Your task to perform on an android device: open app "Messages" Image 0: 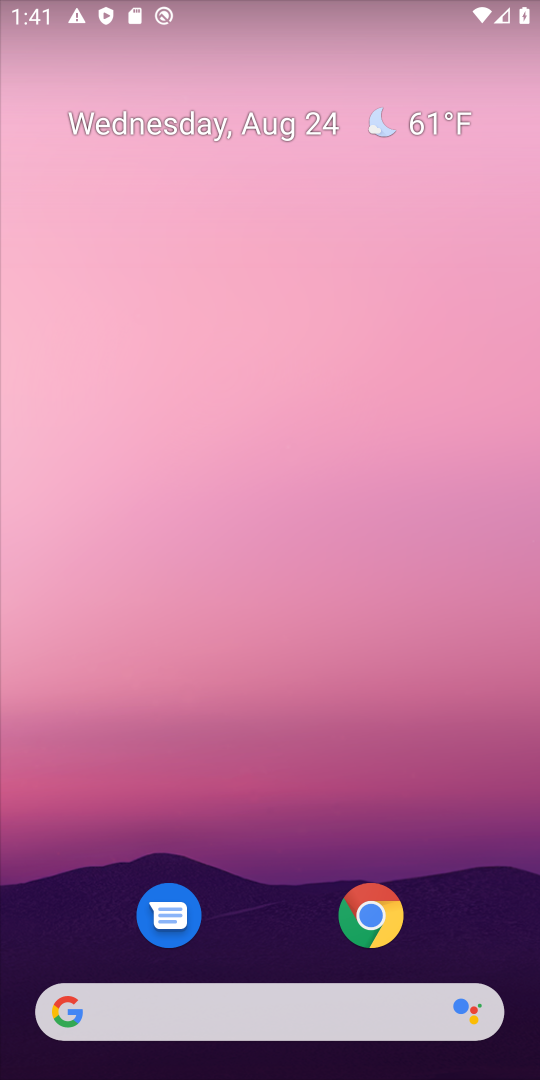
Step 0: click (313, 79)
Your task to perform on an android device: open app "Messages" Image 1: 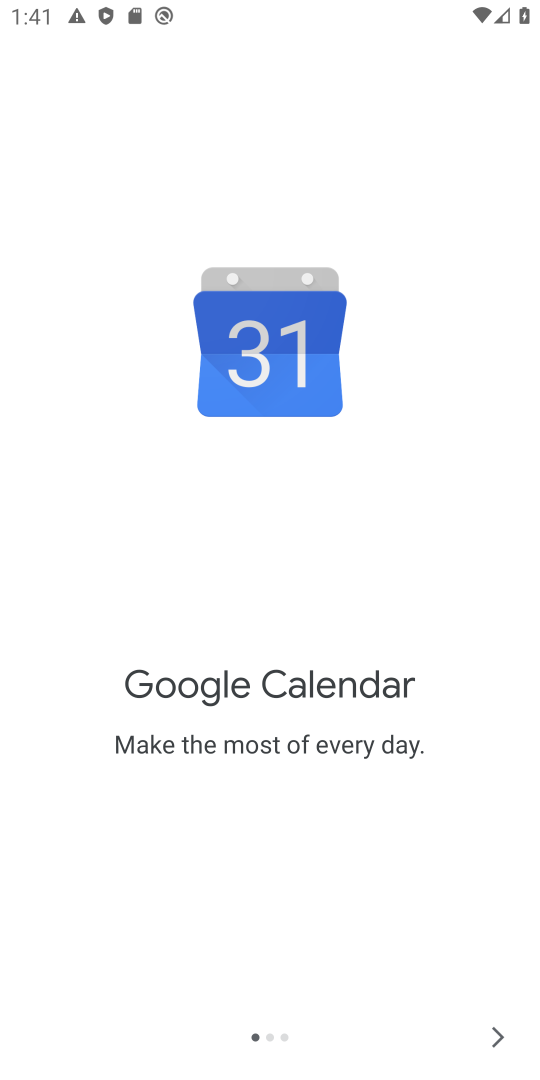
Step 1: task complete